Your task to perform on an android device: toggle priority inbox in the gmail app Image 0: 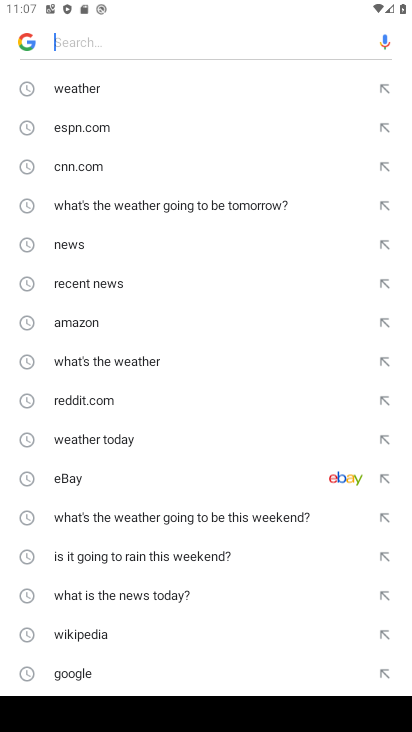
Step 0: press back button
Your task to perform on an android device: toggle priority inbox in the gmail app Image 1: 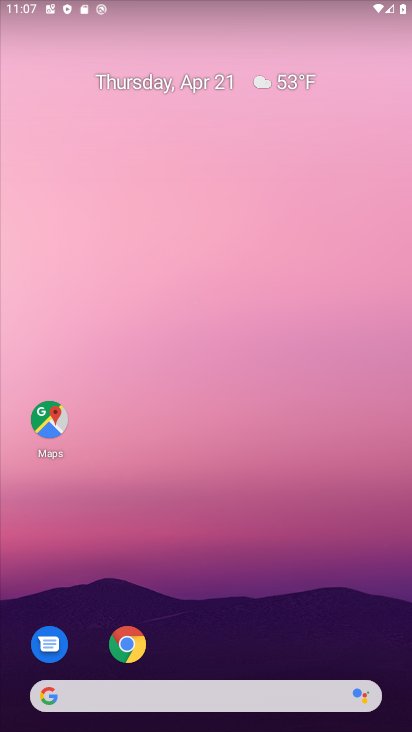
Step 1: drag from (239, 654) to (211, 229)
Your task to perform on an android device: toggle priority inbox in the gmail app Image 2: 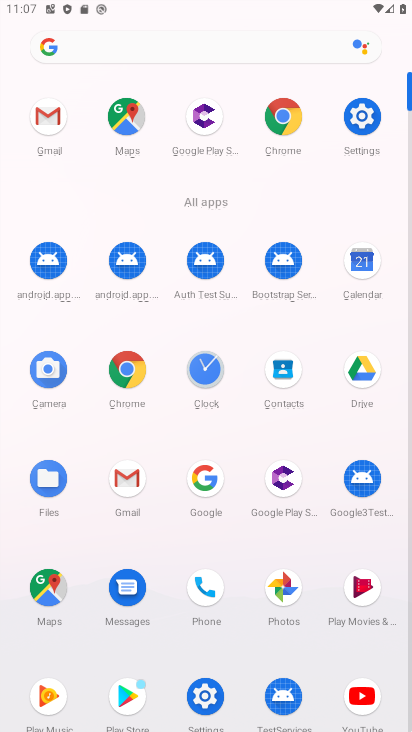
Step 2: click (51, 130)
Your task to perform on an android device: toggle priority inbox in the gmail app Image 3: 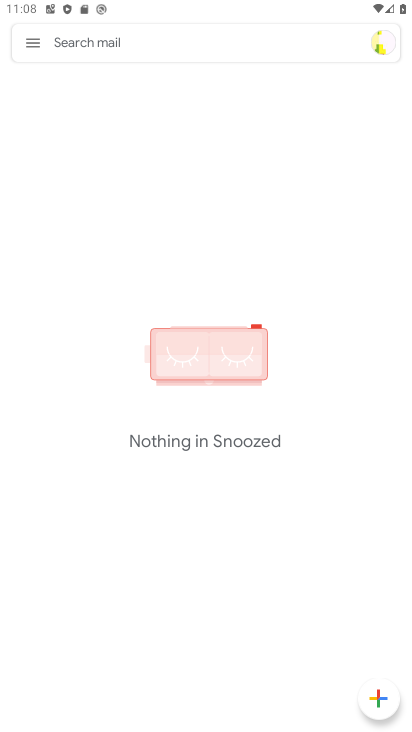
Step 3: click (30, 50)
Your task to perform on an android device: toggle priority inbox in the gmail app Image 4: 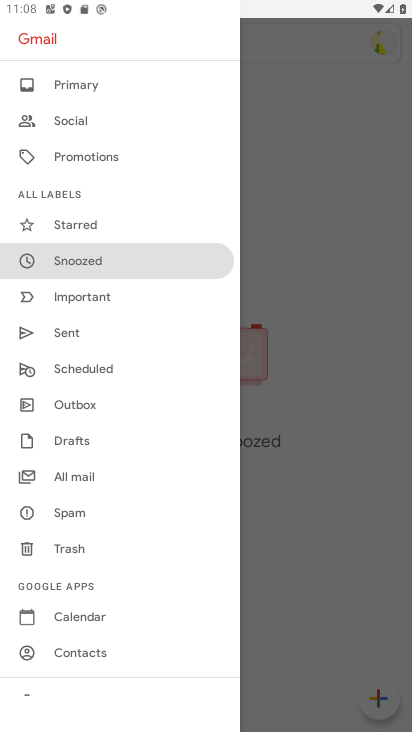
Step 4: drag from (143, 641) to (116, 400)
Your task to perform on an android device: toggle priority inbox in the gmail app Image 5: 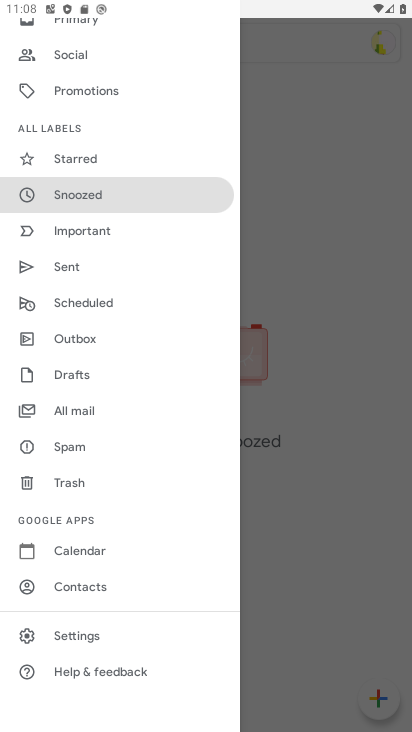
Step 5: click (107, 628)
Your task to perform on an android device: toggle priority inbox in the gmail app Image 6: 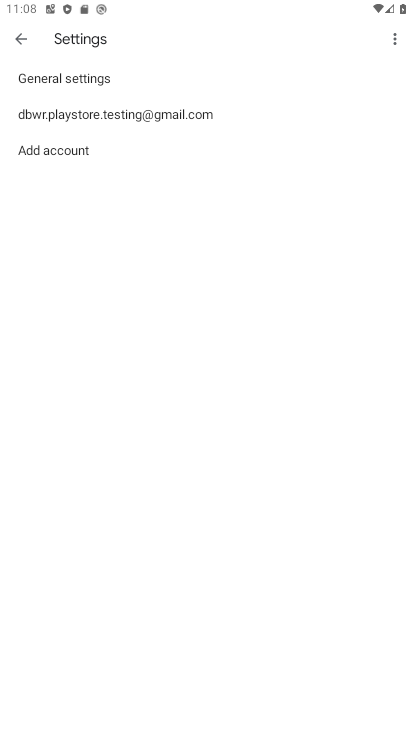
Step 6: click (227, 108)
Your task to perform on an android device: toggle priority inbox in the gmail app Image 7: 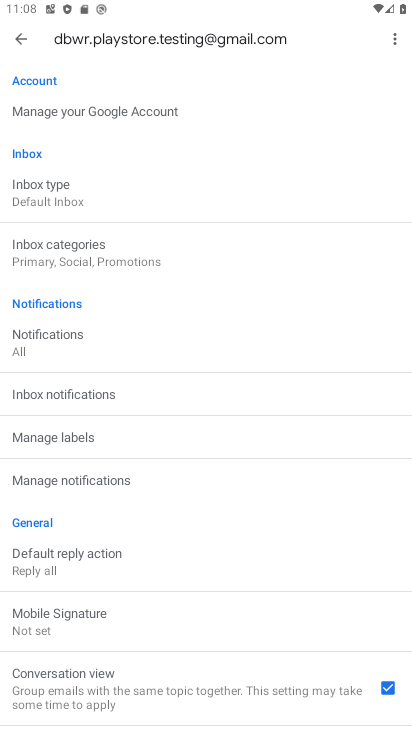
Step 7: click (206, 201)
Your task to perform on an android device: toggle priority inbox in the gmail app Image 8: 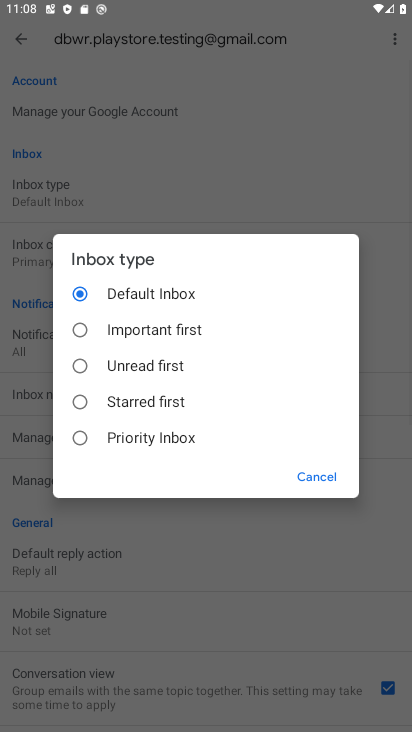
Step 8: click (183, 448)
Your task to perform on an android device: toggle priority inbox in the gmail app Image 9: 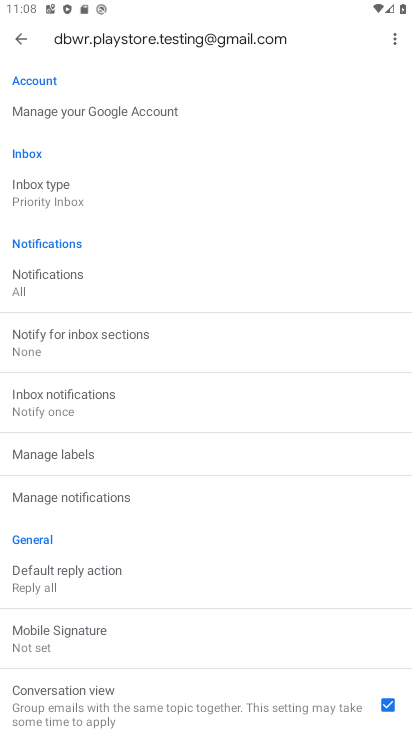
Step 9: task complete